Your task to perform on an android device: Show me popular games on the Play Store Image 0: 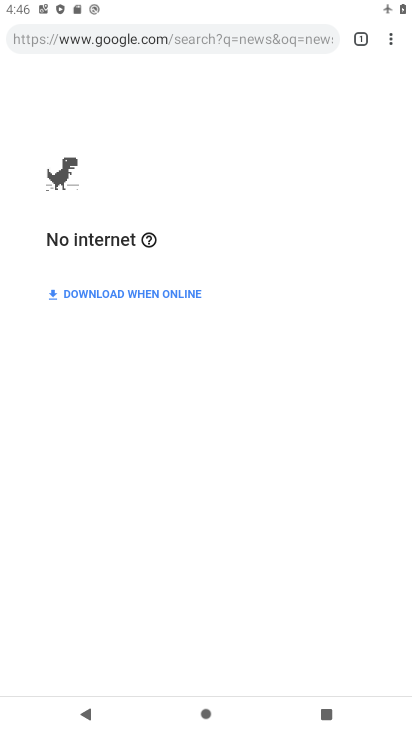
Step 0: press home button
Your task to perform on an android device: Show me popular games on the Play Store Image 1: 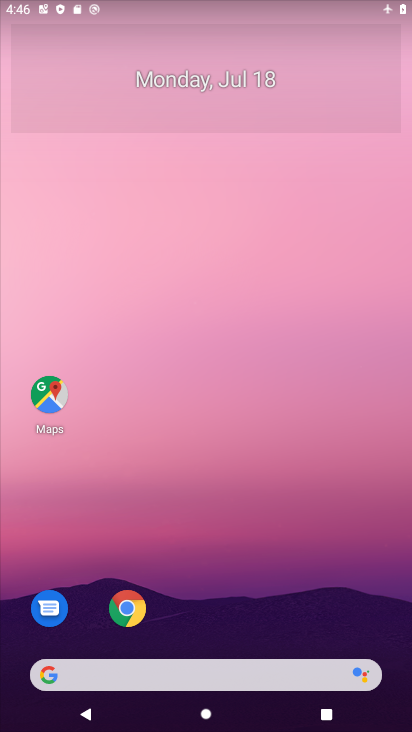
Step 1: drag from (242, 594) to (220, 76)
Your task to perform on an android device: Show me popular games on the Play Store Image 2: 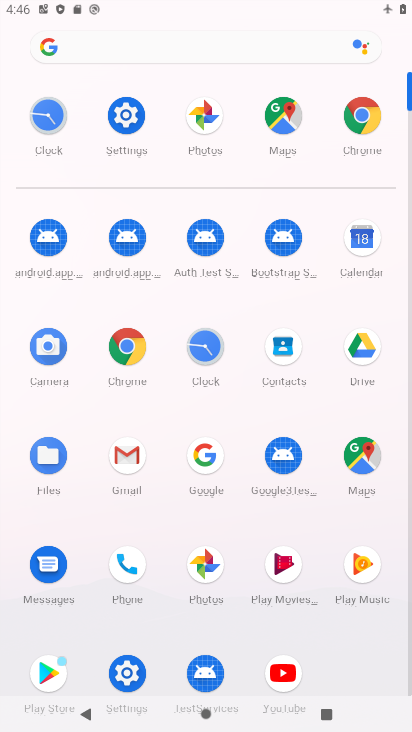
Step 2: click (62, 676)
Your task to perform on an android device: Show me popular games on the Play Store Image 3: 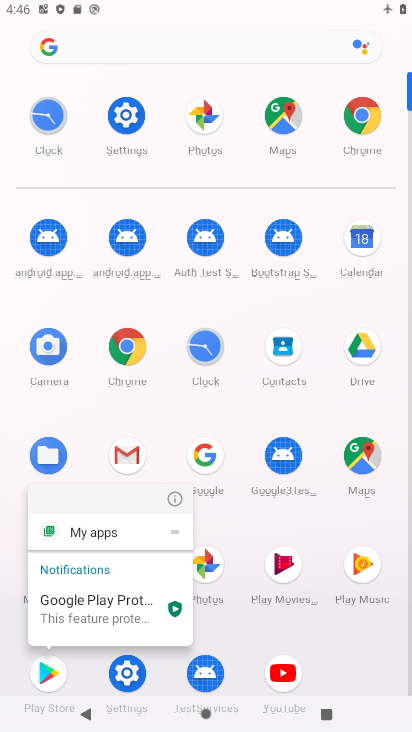
Step 3: click (44, 683)
Your task to perform on an android device: Show me popular games on the Play Store Image 4: 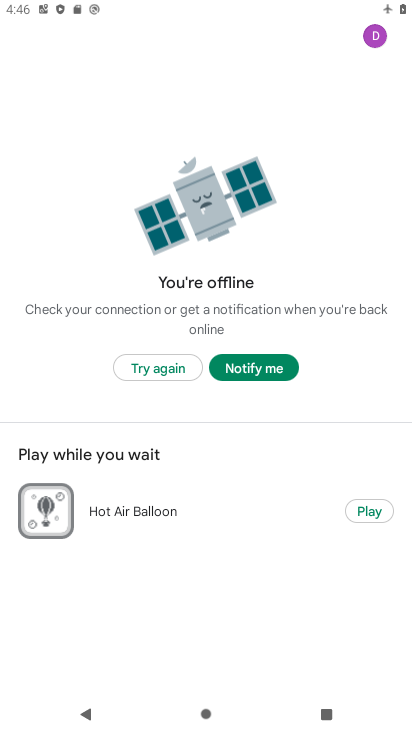
Step 4: task complete